Your task to perform on an android device: Open calendar and show me the second week of next month Image 0: 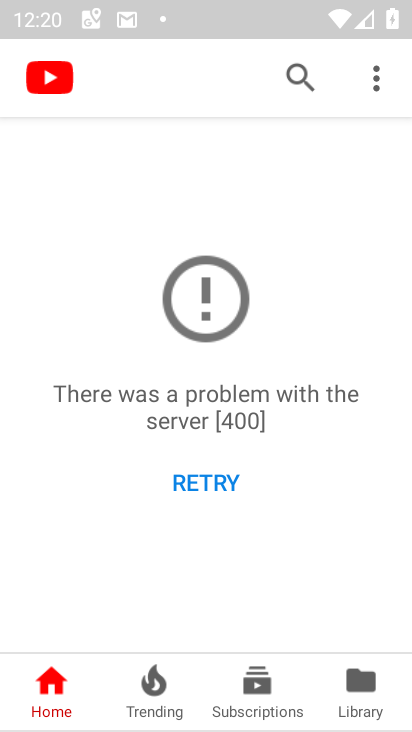
Step 0: press home button
Your task to perform on an android device: Open calendar and show me the second week of next month Image 1: 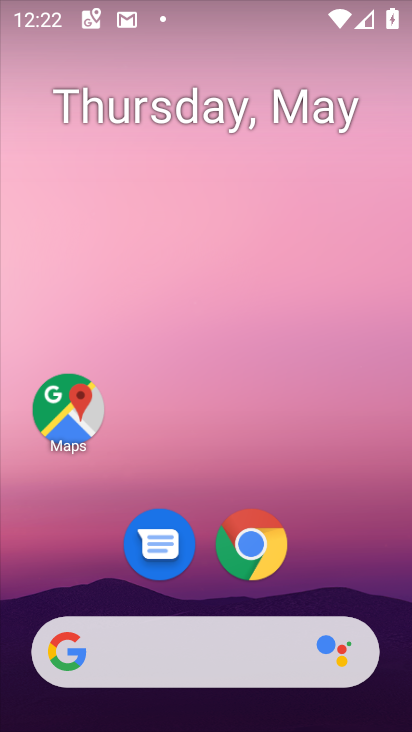
Step 1: drag from (269, 552) to (285, 78)
Your task to perform on an android device: Open calendar and show me the second week of next month Image 2: 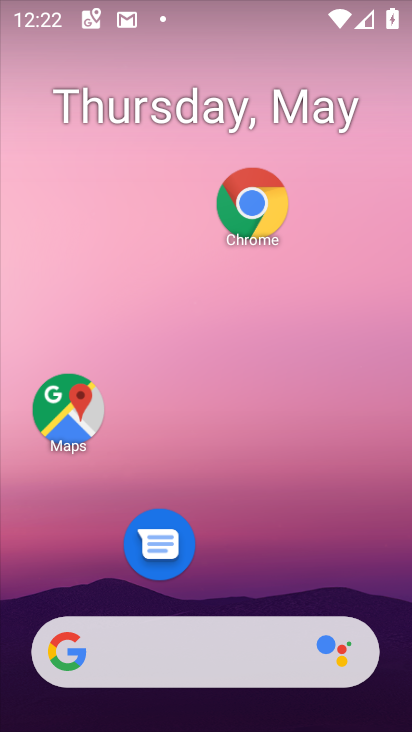
Step 2: drag from (213, 688) to (349, 63)
Your task to perform on an android device: Open calendar and show me the second week of next month Image 3: 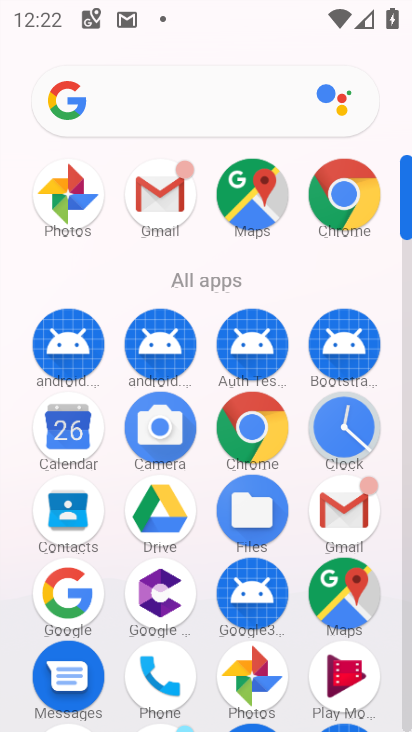
Step 3: click (74, 436)
Your task to perform on an android device: Open calendar and show me the second week of next month Image 4: 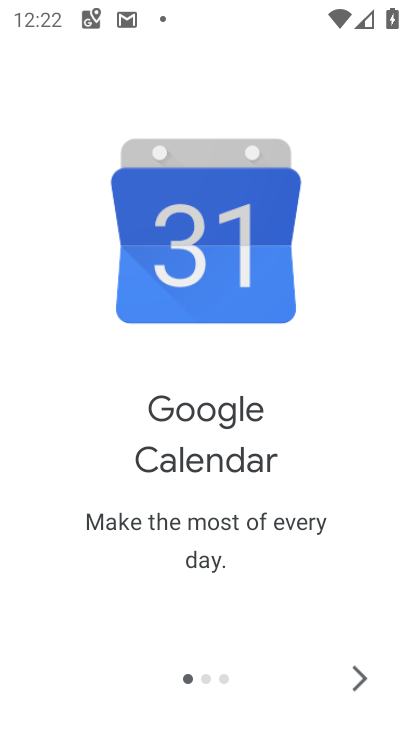
Step 4: click (365, 683)
Your task to perform on an android device: Open calendar and show me the second week of next month Image 5: 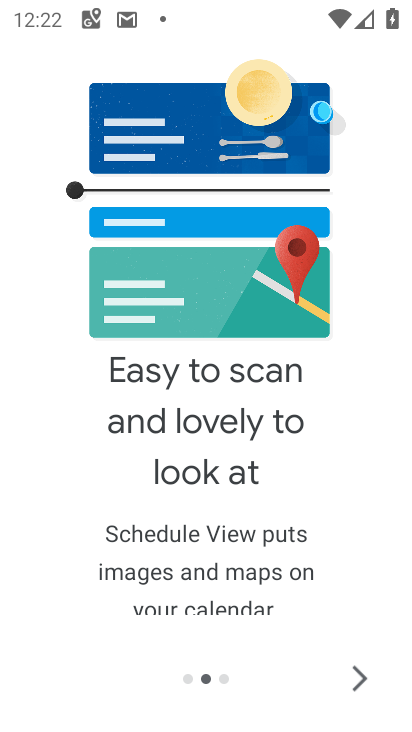
Step 5: click (365, 683)
Your task to perform on an android device: Open calendar and show me the second week of next month Image 6: 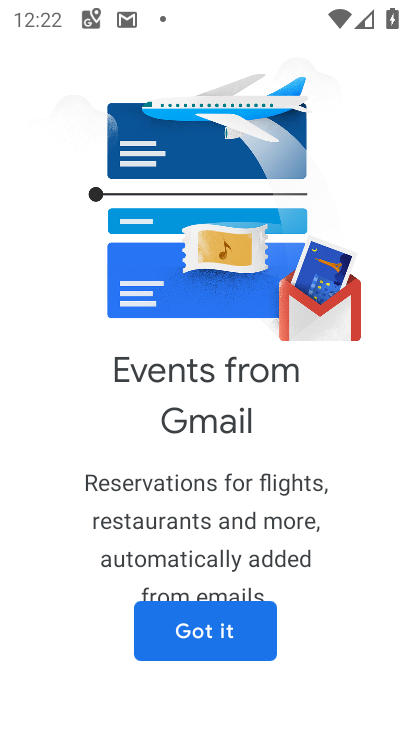
Step 6: click (231, 632)
Your task to perform on an android device: Open calendar and show me the second week of next month Image 7: 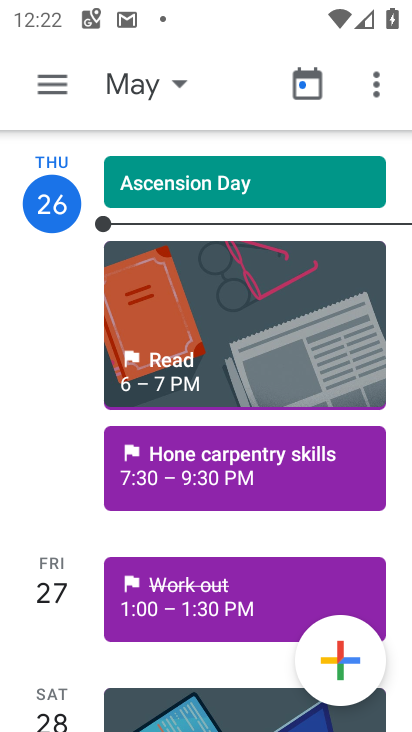
Step 7: click (136, 89)
Your task to perform on an android device: Open calendar and show me the second week of next month Image 8: 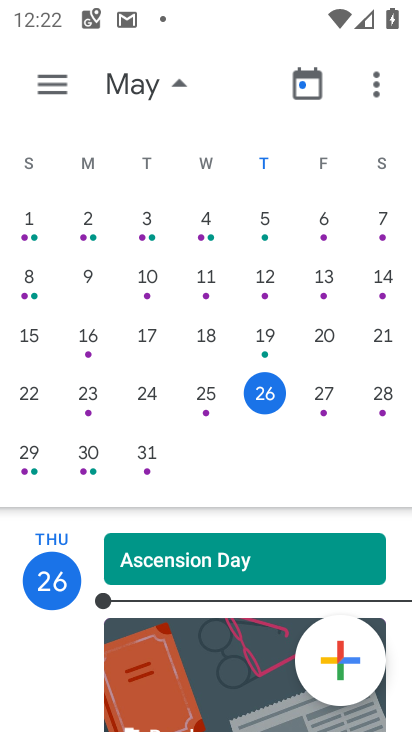
Step 8: drag from (297, 362) to (41, 398)
Your task to perform on an android device: Open calendar and show me the second week of next month Image 9: 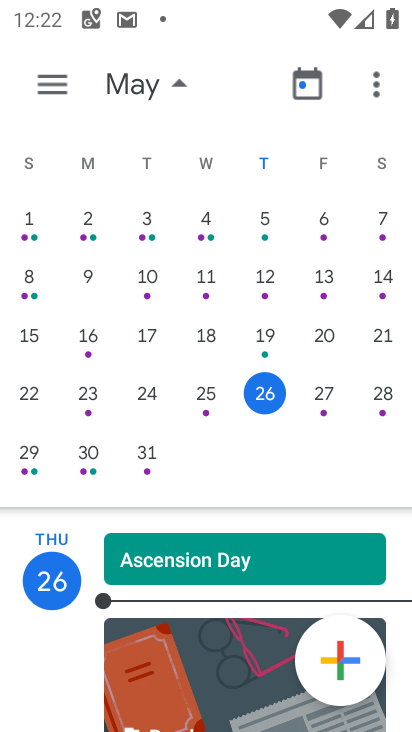
Step 9: click (21, 436)
Your task to perform on an android device: Open calendar and show me the second week of next month Image 10: 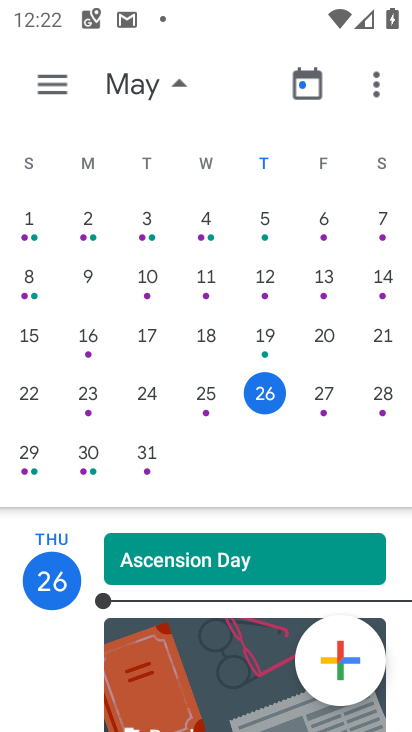
Step 10: drag from (345, 331) to (8, 343)
Your task to perform on an android device: Open calendar and show me the second week of next month Image 11: 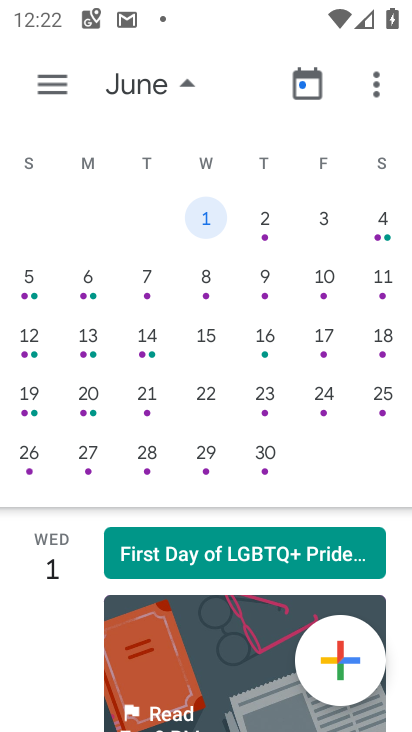
Step 11: drag from (360, 413) to (25, 300)
Your task to perform on an android device: Open calendar and show me the second week of next month Image 12: 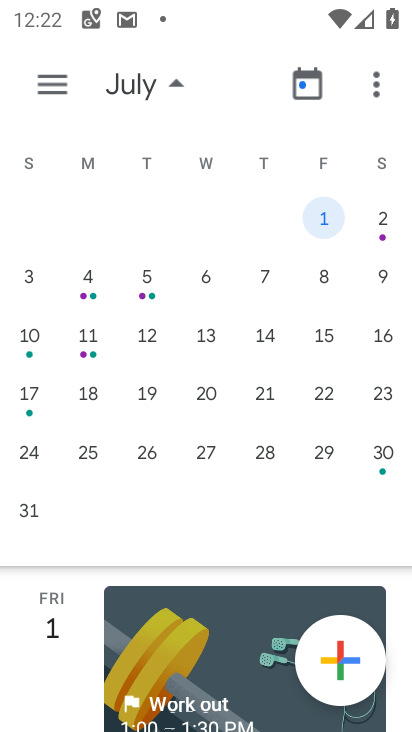
Step 12: drag from (336, 235) to (353, 392)
Your task to perform on an android device: Open calendar and show me the second week of next month Image 13: 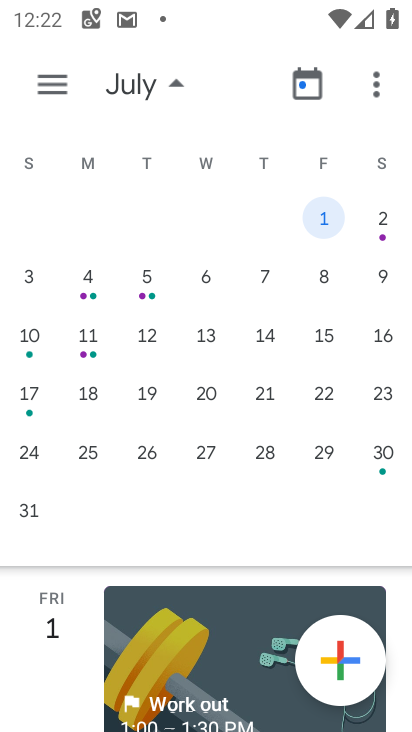
Step 13: drag from (85, 212) to (398, 307)
Your task to perform on an android device: Open calendar and show me the second week of next month Image 14: 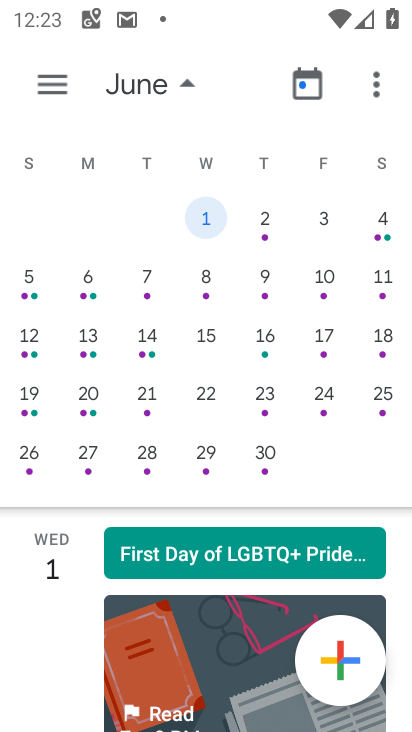
Step 14: click (22, 274)
Your task to perform on an android device: Open calendar and show me the second week of next month Image 15: 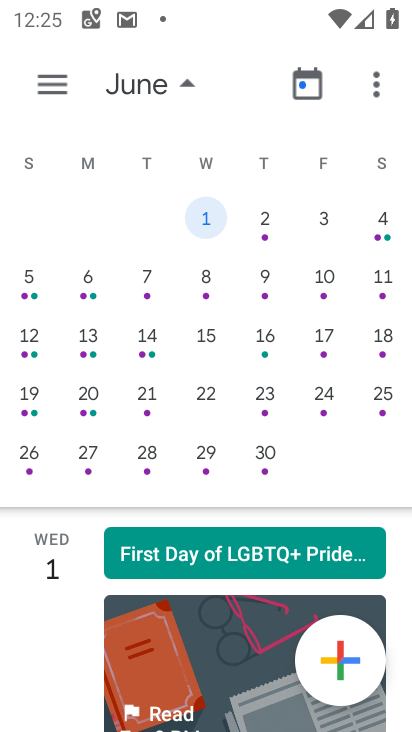
Step 15: click (34, 280)
Your task to perform on an android device: Open calendar and show me the second week of next month Image 16: 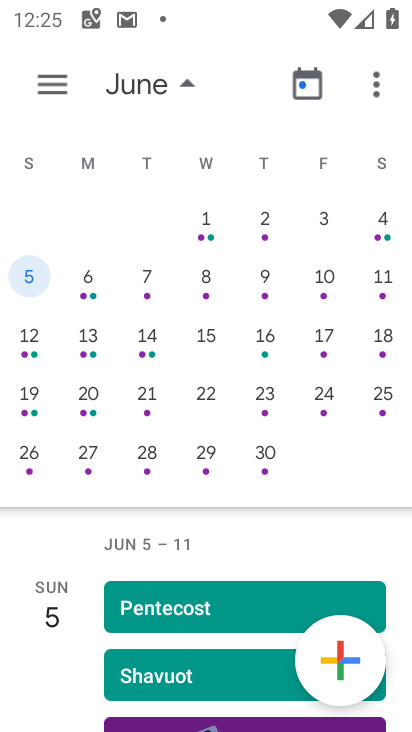
Step 16: task complete